Your task to perform on an android device: Open the web browser Image 0: 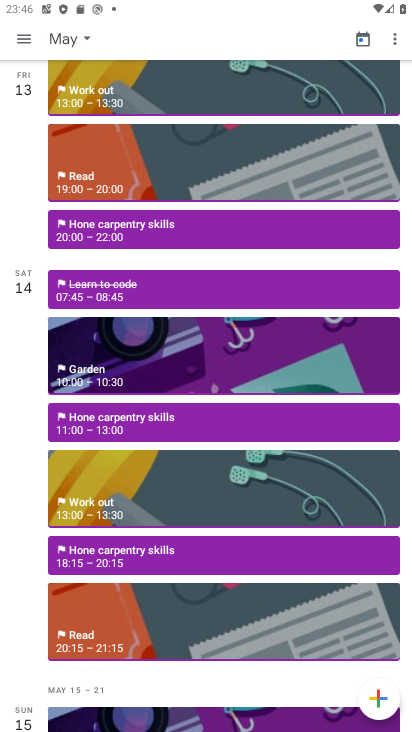
Step 0: press home button
Your task to perform on an android device: Open the web browser Image 1: 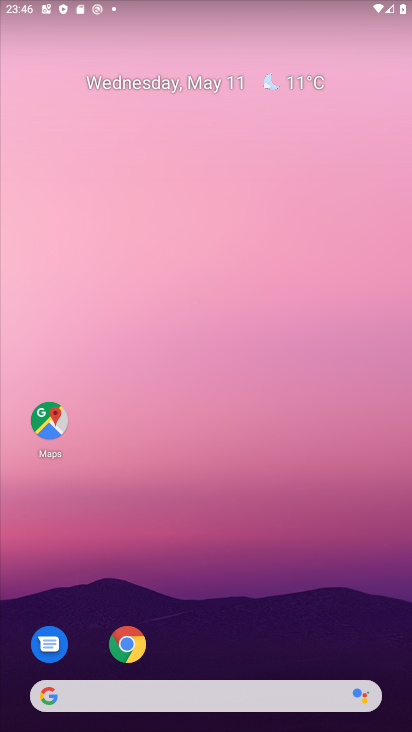
Step 1: click (136, 633)
Your task to perform on an android device: Open the web browser Image 2: 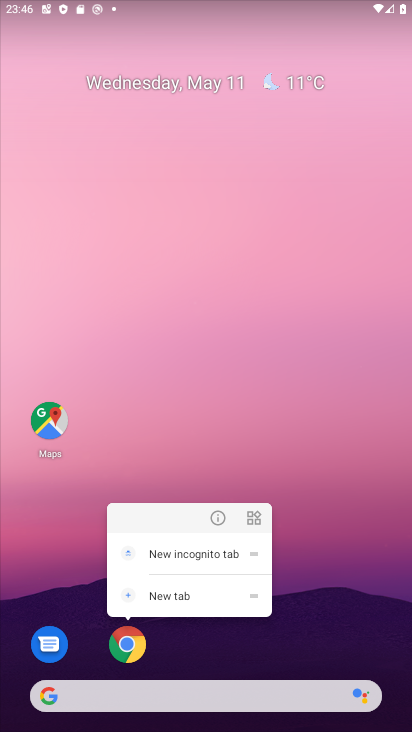
Step 2: click (139, 620)
Your task to perform on an android device: Open the web browser Image 3: 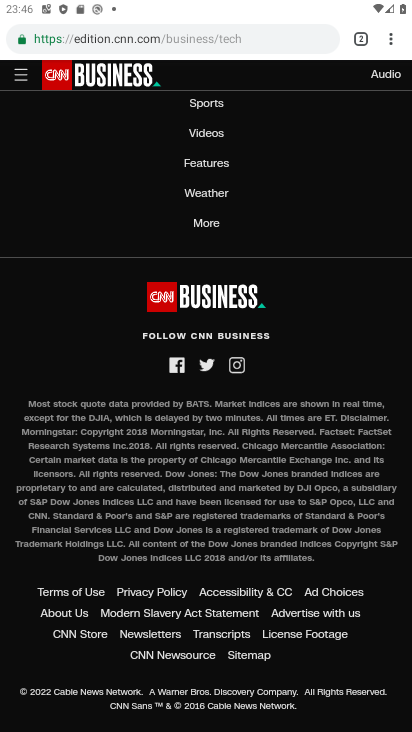
Step 3: click (354, 47)
Your task to perform on an android device: Open the web browser Image 4: 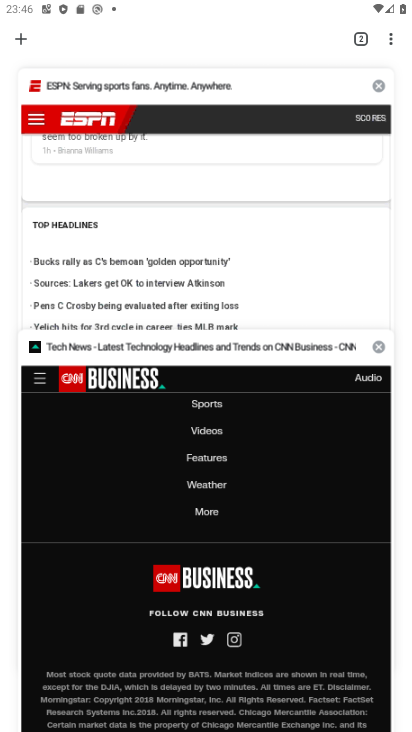
Step 4: click (379, 80)
Your task to perform on an android device: Open the web browser Image 5: 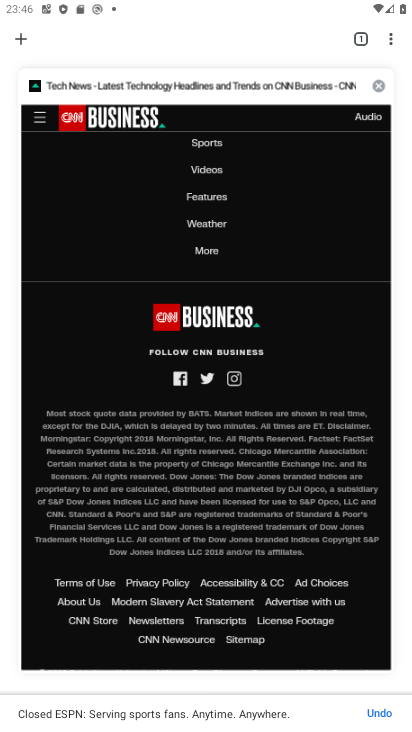
Step 5: click (373, 82)
Your task to perform on an android device: Open the web browser Image 6: 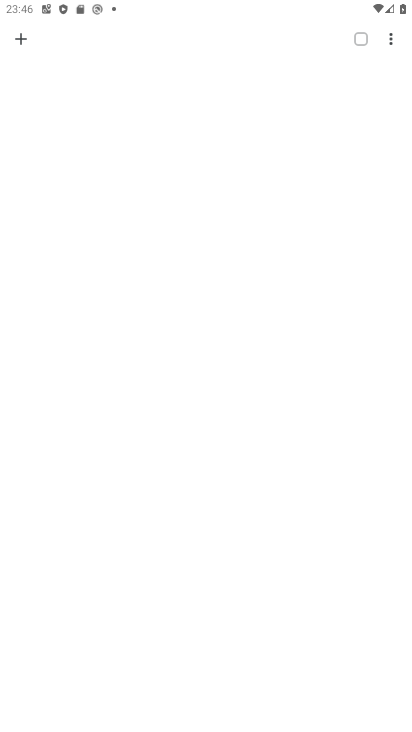
Step 6: click (23, 43)
Your task to perform on an android device: Open the web browser Image 7: 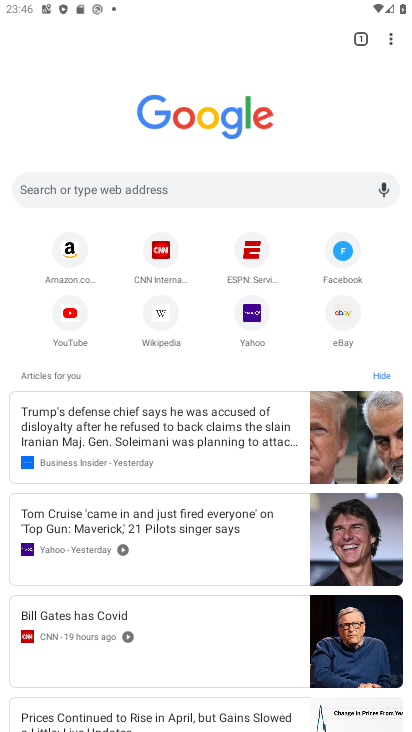
Step 7: task complete